Your task to perform on an android device: Go to Android settings Image 0: 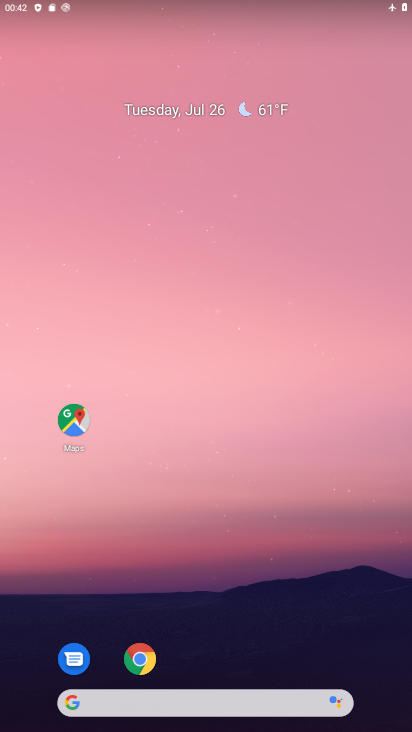
Step 0: drag from (252, 604) to (101, 4)
Your task to perform on an android device: Go to Android settings Image 1: 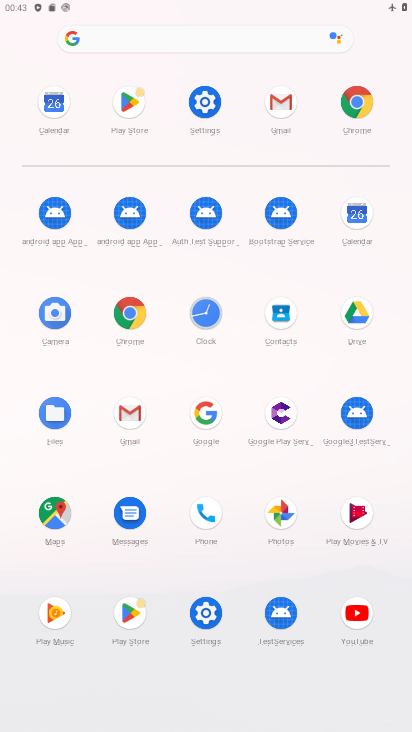
Step 1: click (214, 95)
Your task to perform on an android device: Go to Android settings Image 2: 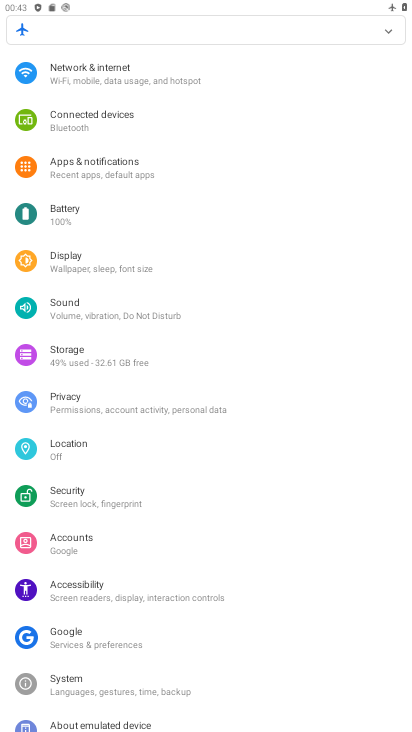
Step 2: task complete